Your task to perform on an android device: see creations saved in the google photos Image 0: 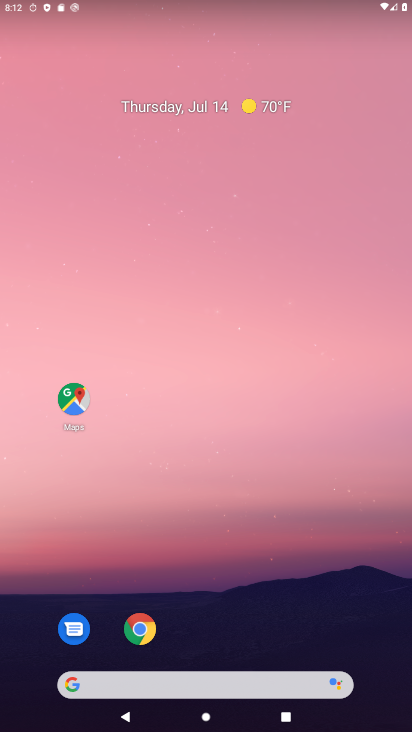
Step 0: drag from (274, 561) to (249, 93)
Your task to perform on an android device: see creations saved in the google photos Image 1: 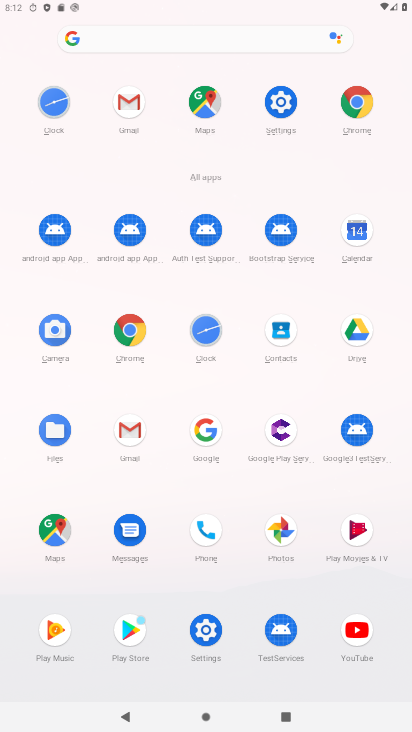
Step 1: click (276, 532)
Your task to perform on an android device: see creations saved in the google photos Image 2: 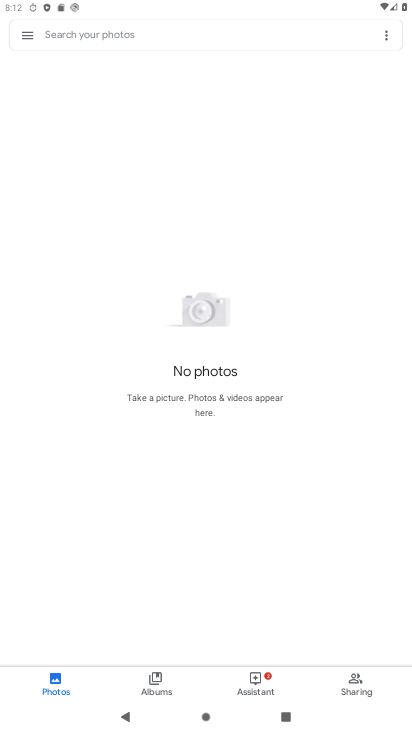
Step 2: click (140, 684)
Your task to perform on an android device: see creations saved in the google photos Image 3: 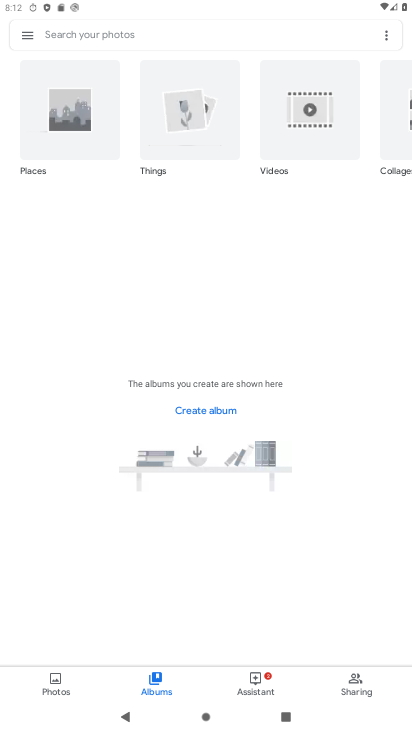
Step 3: task complete